Your task to perform on an android device: Open maps Image 0: 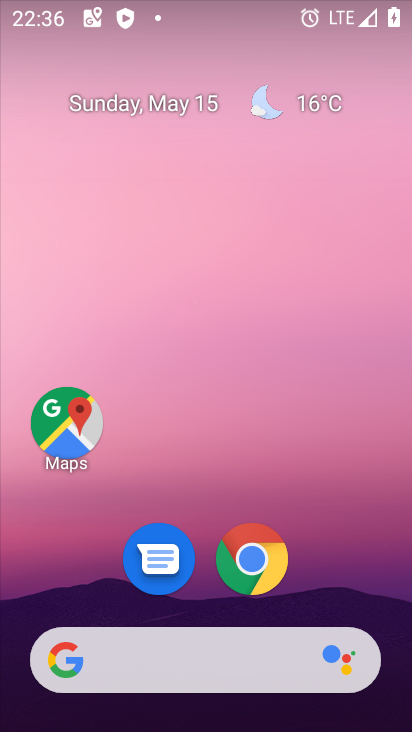
Step 0: click (63, 438)
Your task to perform on an android device: Open maps Image 1: 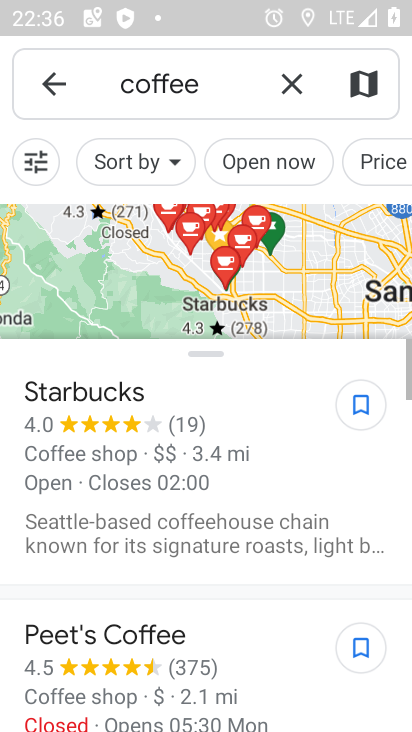
Step 1: click (295, 87)
Your task to perform on an android device: Open maps Image 2: 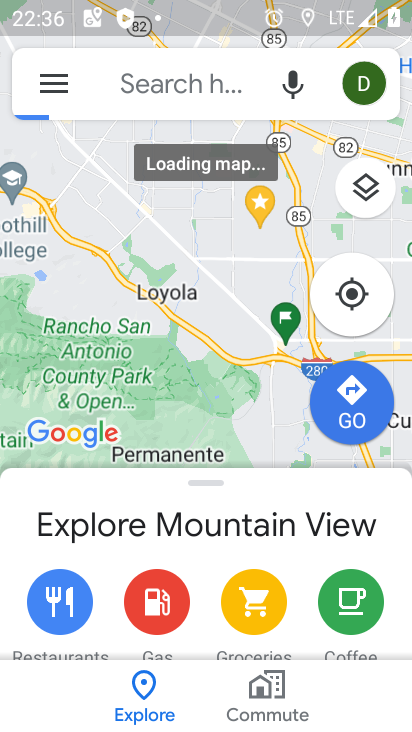
Step 2: task complete